Your task to perform on an android device: What's the weather today? Image 0: 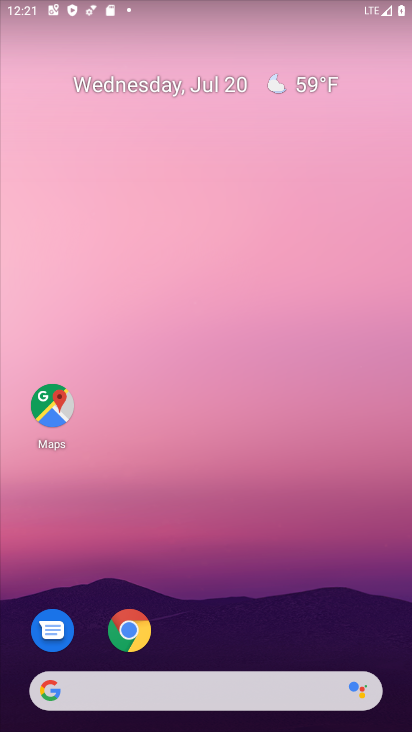
Step 0: drag from (183, 599) to (156, 319)
Your task to perform on an android device: What's the weather today? Image 1: 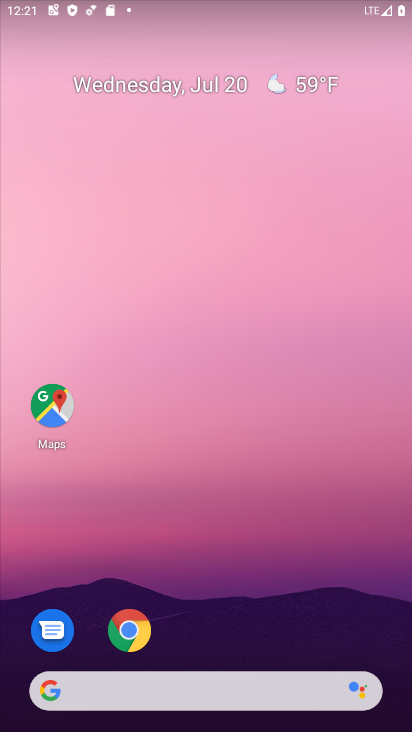
Step 1: drag from (189, 631) to (140, 334)
Your task to perform on an android device: What's the weather today? Image 2: 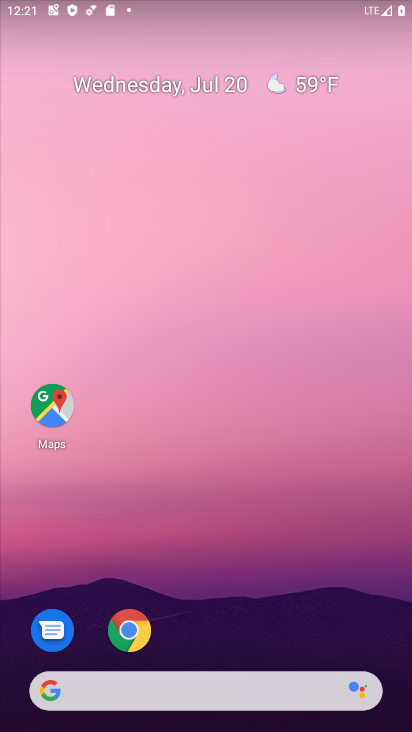
Step 2: drag from (229, 674) to (201, 81)
Your task to perform on an android device: What's the weather today? Image 3: 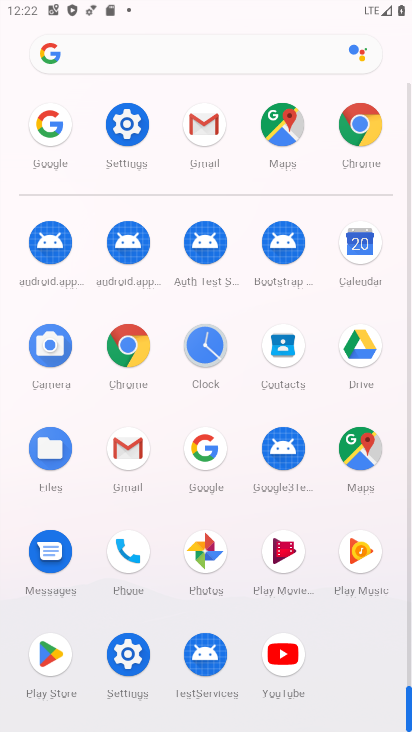
Step 3: click (199, 459)
Your task to perform on an android device: What's the weather today? Image 4: 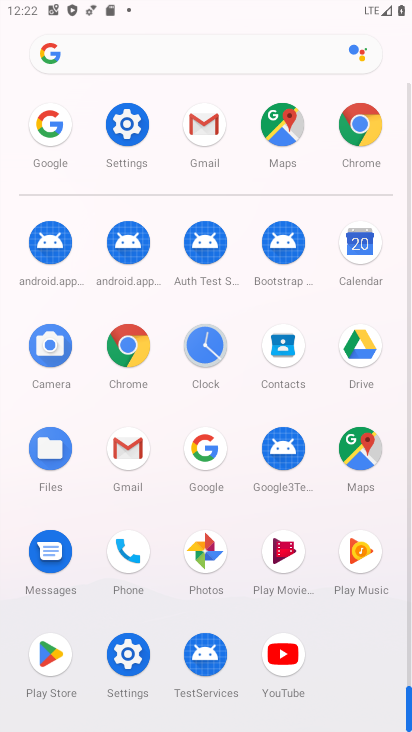
Step 4: click (200, 446)
Your task to perform on an android device: What's the weather today? Image 5: 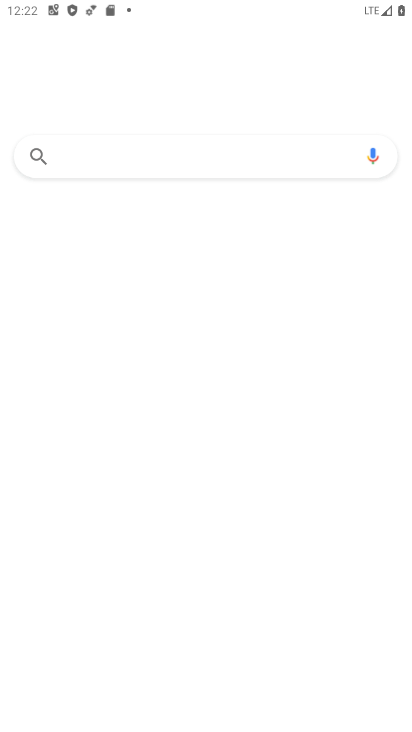
Step 5: click (230, 158)
Your task to perform on an android device: What's the weather today? Image 6: 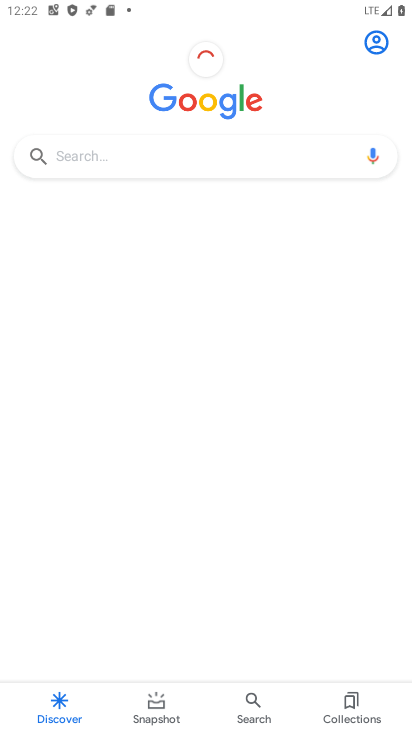
Step 6: click (238, 170)
Your task to perform on an android device: What's the weather today? Image 7: 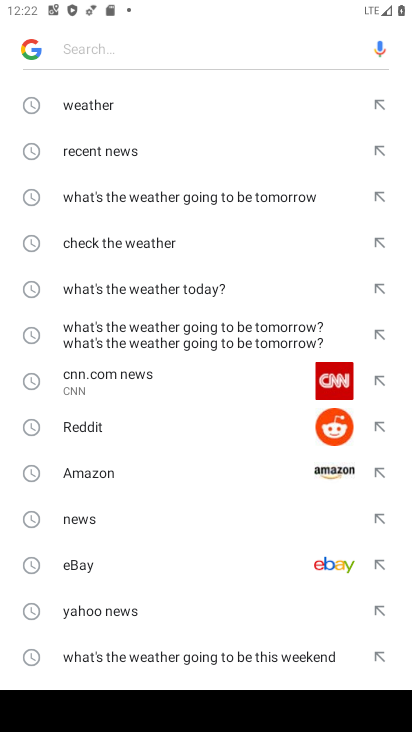
Step 7: click (139, 114)
Your task to perform on an android device: What's the weather today? Image 8: 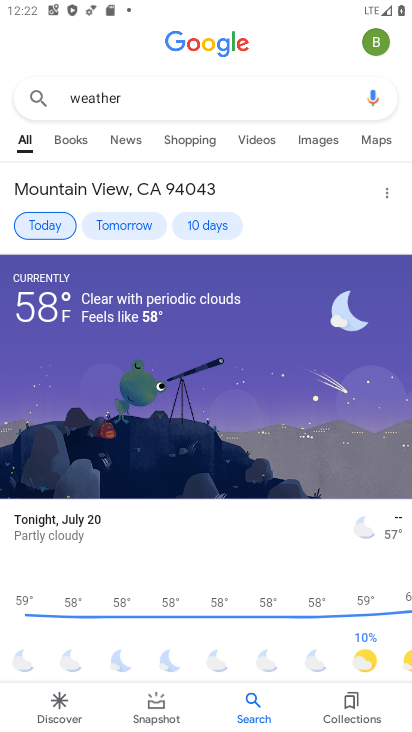
Step 8: task complete